Your task to perform on an android device: change text size in settings app Image 0: 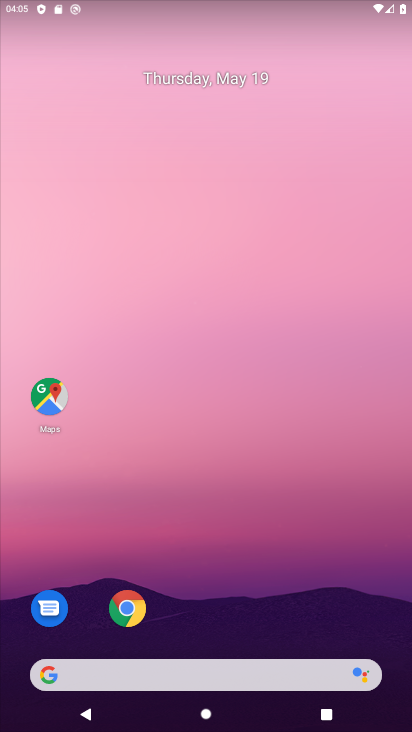
Step 0: drag from (231, 571) to (176, 92)
Your task to perform on an android device: change text size in settings app Image 1: 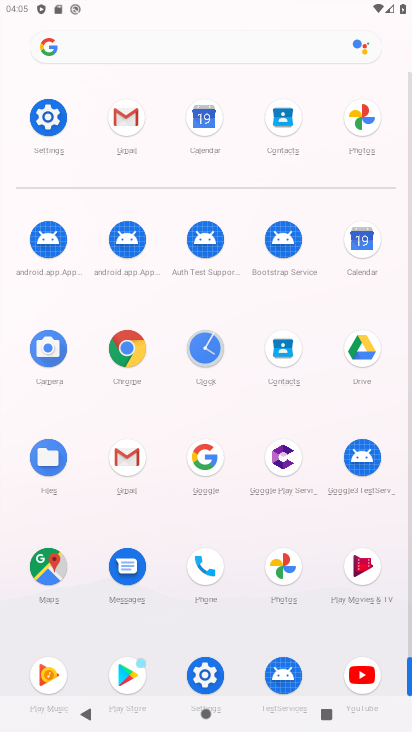
Step 1: click (205, 675)
Your task to perform on an android device: change text size in settings app Image 2: 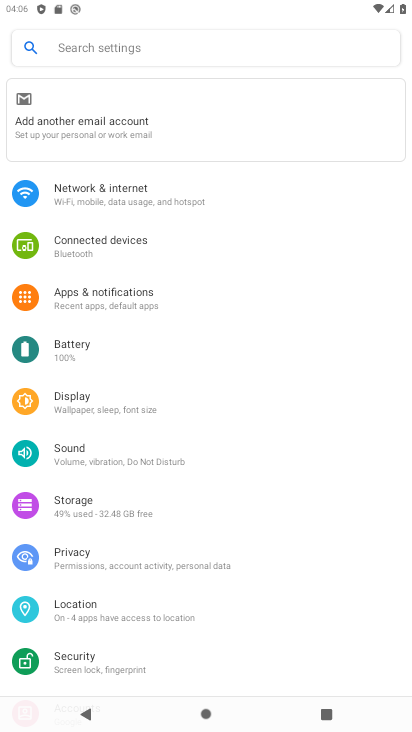
Step 2: drag from (110, 537) to (125, 453)
Your task to perform on an android device: change text size in settings app Image 3: 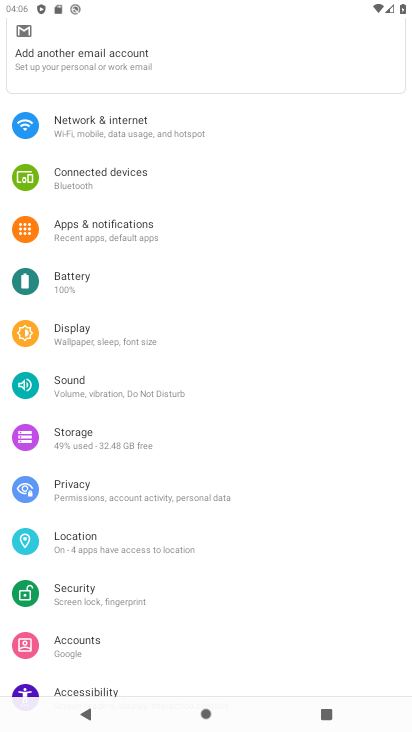
Step 3: drag from (118, 568) to (142, 495)
Your task to perform on an android device: change text size in settings app Image 4: 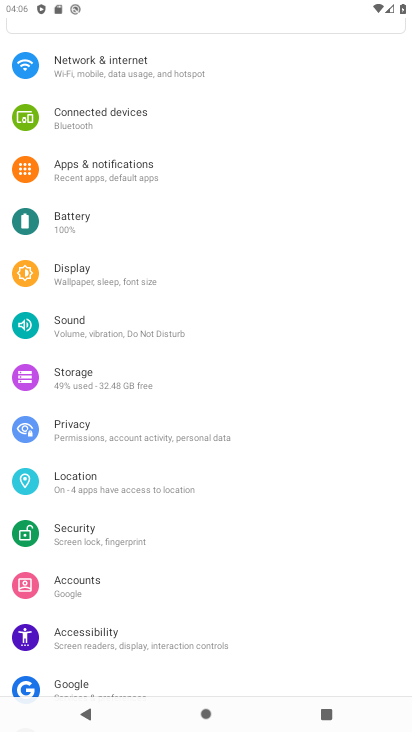
Step 4: click (75, 631)
Your task to perform on an android device: change text size in settings app Image 5: 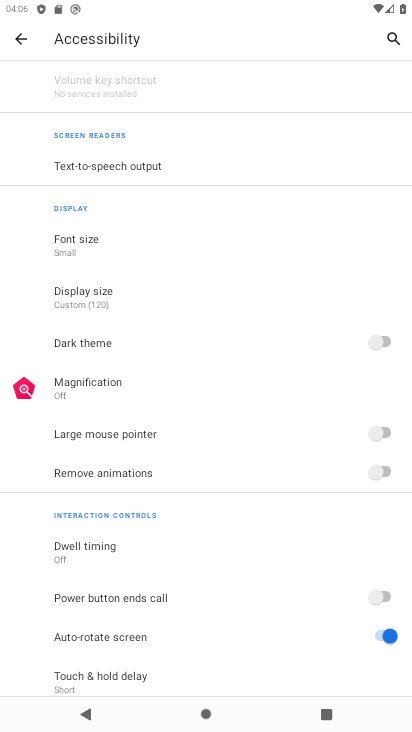
Step 5: click (78, 249)
Your task to perform on an android device: change text size in settings app Image 6: 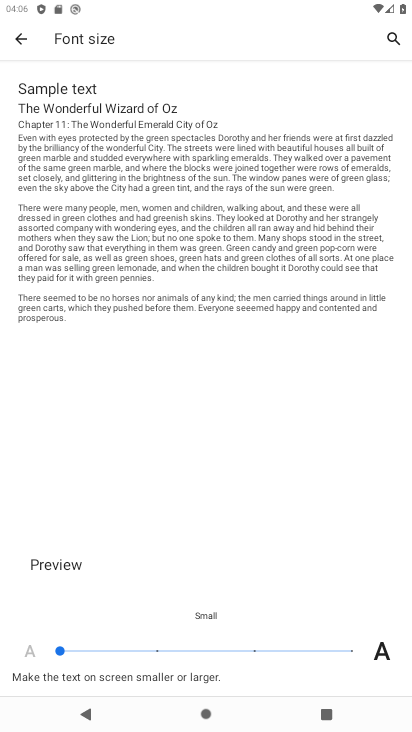
Step 6: click (161, 645)
Your task to perform on an android device: change text size in settings app Image 7: 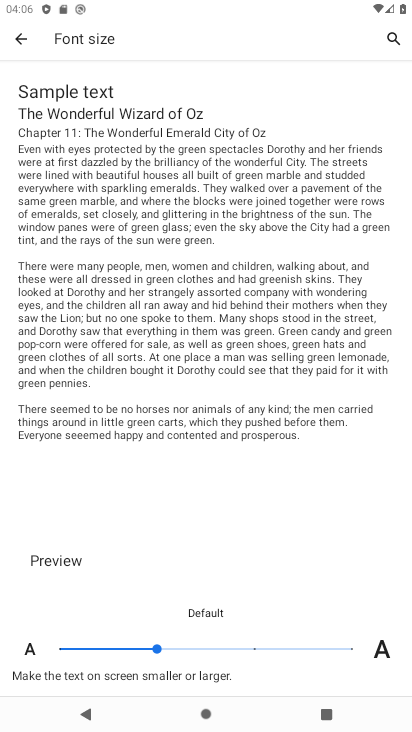
Step 7: task complete